Your task to perform on an android device: visit the assistant section in the google photos Image 0: 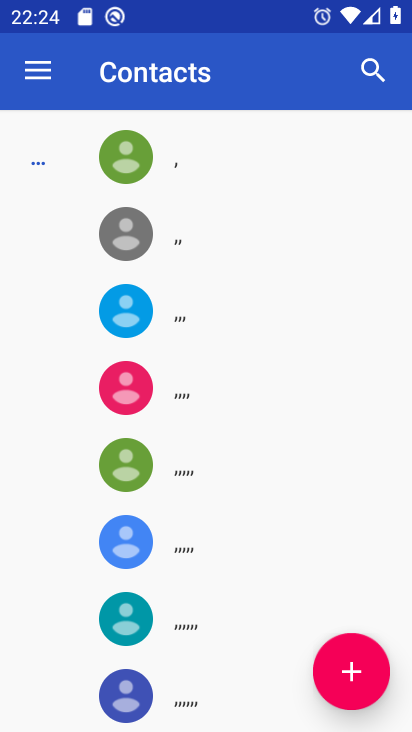
Step 0: press home button
Your task to perform on an android device: visit the assistant section in the google photos Image 1: 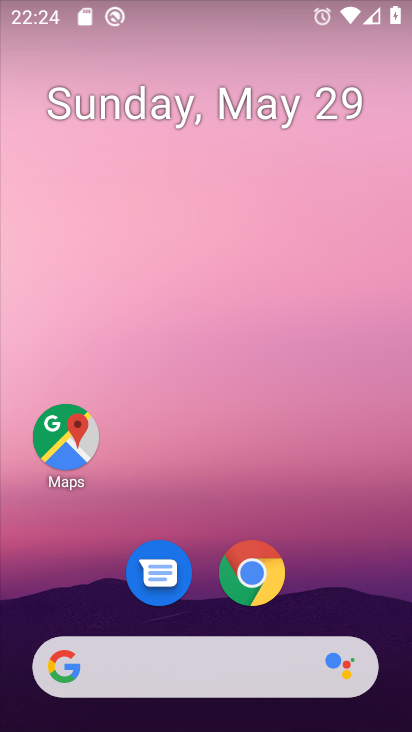
Step 1: drag from (223, 507) to (235, 0)
Your task to perform on an android device: visit the assistant section in the google photos Image 2: 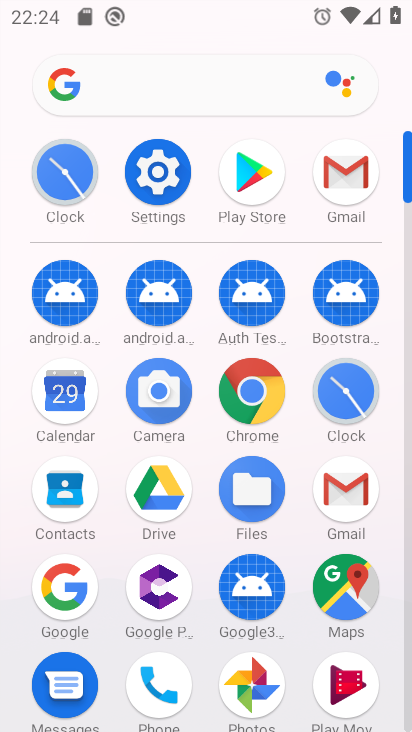
Step 2: click (244, 667)
Your task to perform on an android device: visit the assistant section in the google photos Image 3: 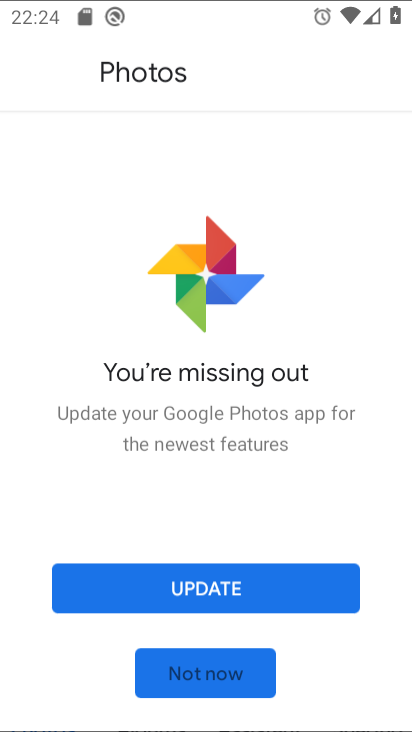
Step 3: click (252, 675)
Your task to perform on an android device: visit the assistant section in the google photos Image 4: 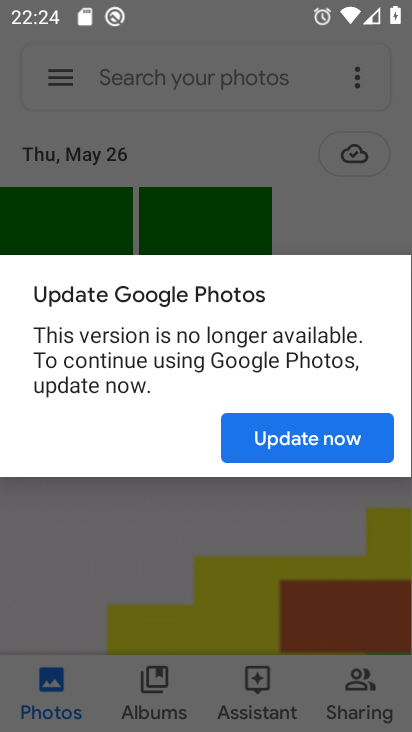
Step 4: click (353, 446)
Your task to perform on an android device: visit the assistant section in the google photos Image 5: 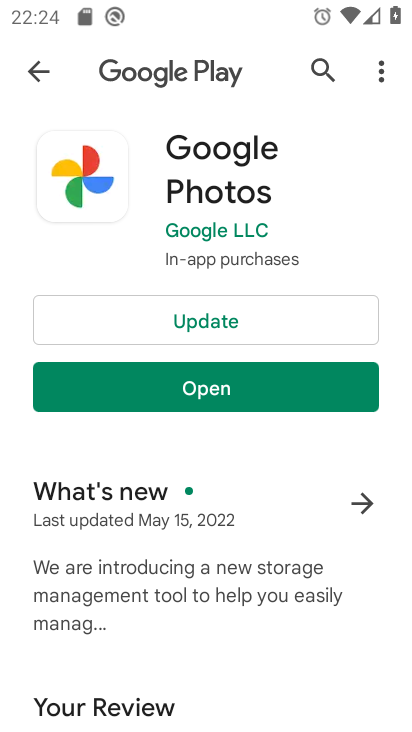
Step 5: click (336, 390)
Your task to perform on an android device: visit the assistant section in the google photos Image 6: 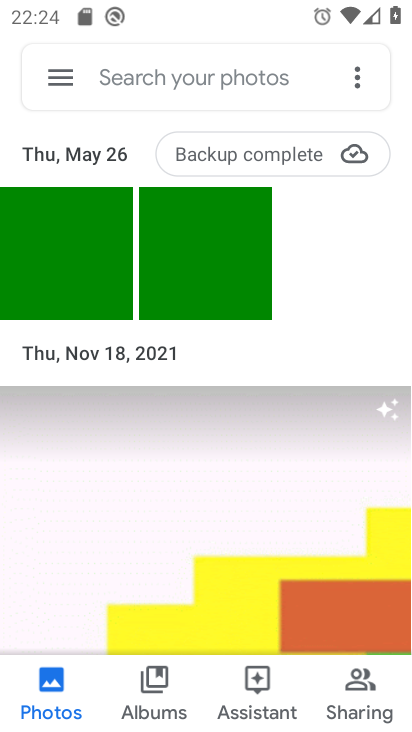
Step 6: click (273, 702)
Your task to perform on an android device: visit the assistant section in the google photos Image 7: 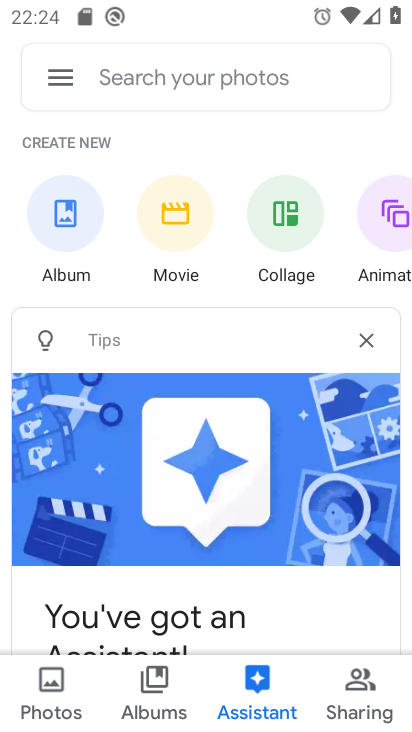
Step 7: task complete